Your task to perform on an android device: Add razer kraken to the cart on costco.com, then select checkout. Image 0: 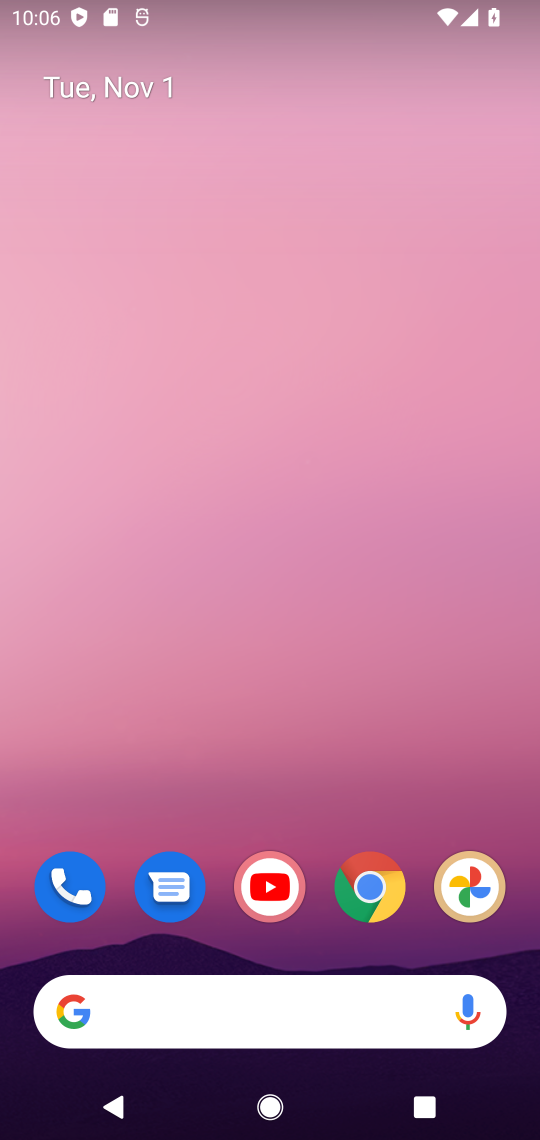
Step 0: click (357, 886)
Your task to perform on an android device: Add razer kraken to the cart on costco.com, then select checkout. Image 1: 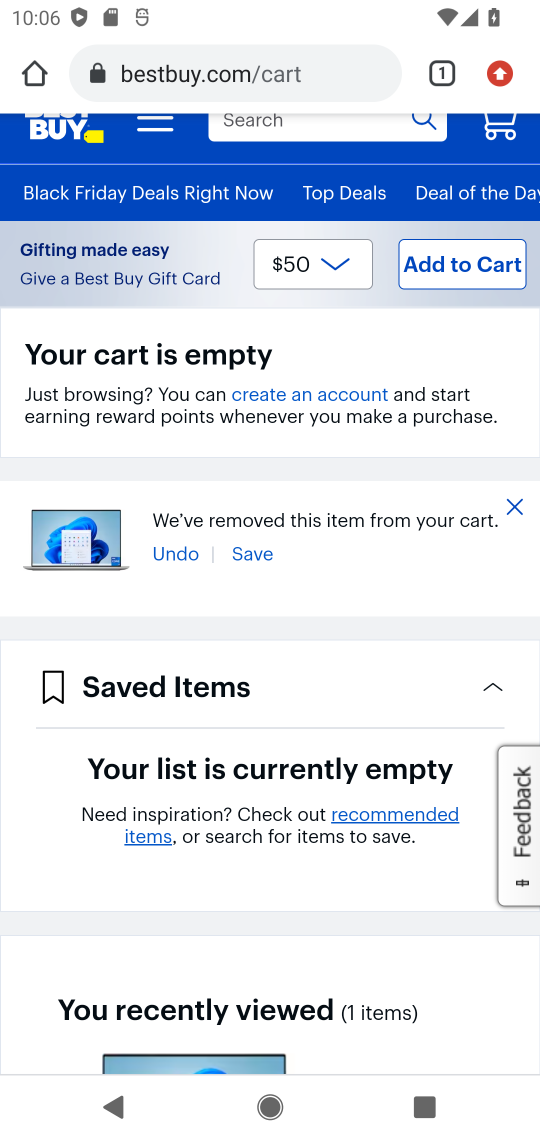
Step 1: click (282, 69)
Your task to perform on an android device: Add razer kraken to the cart on costco.com, then select checkout. Image 2: 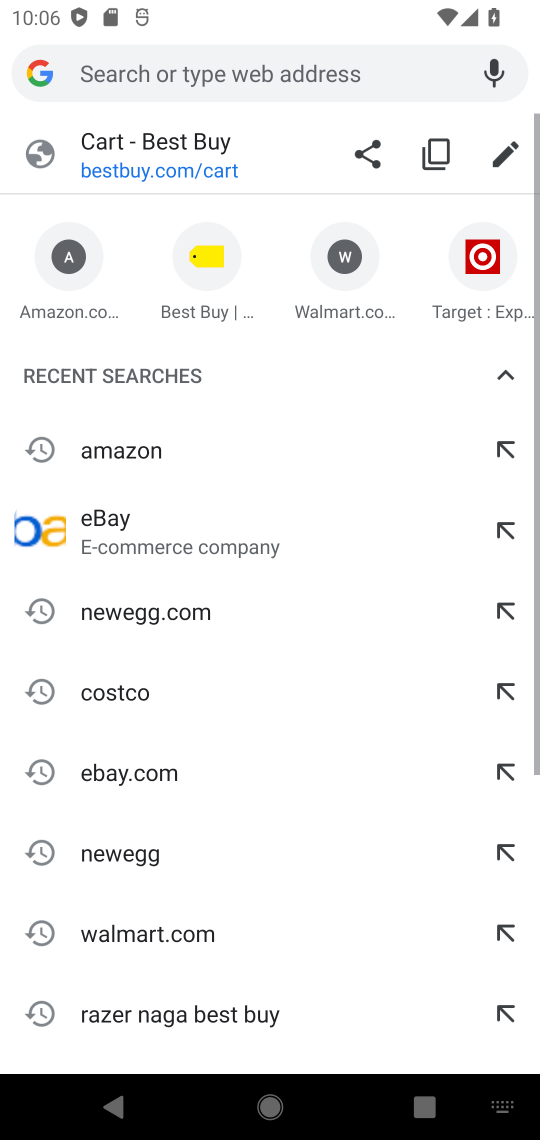
Step 2: type "costco.com"
Your task to perform on an android device: Add razer kraken to the cart on costco.com, then select checkout. Image 3: 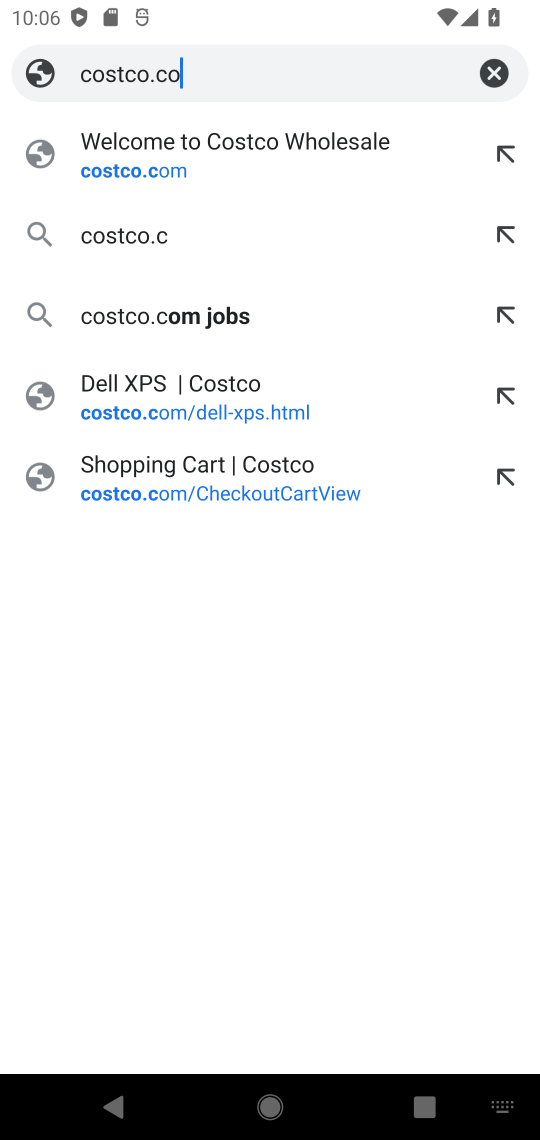
Step 3: press enter
Your task to perform on an android device: Add razer kraken to the cart on costco.com, then select checkout. Image 4: 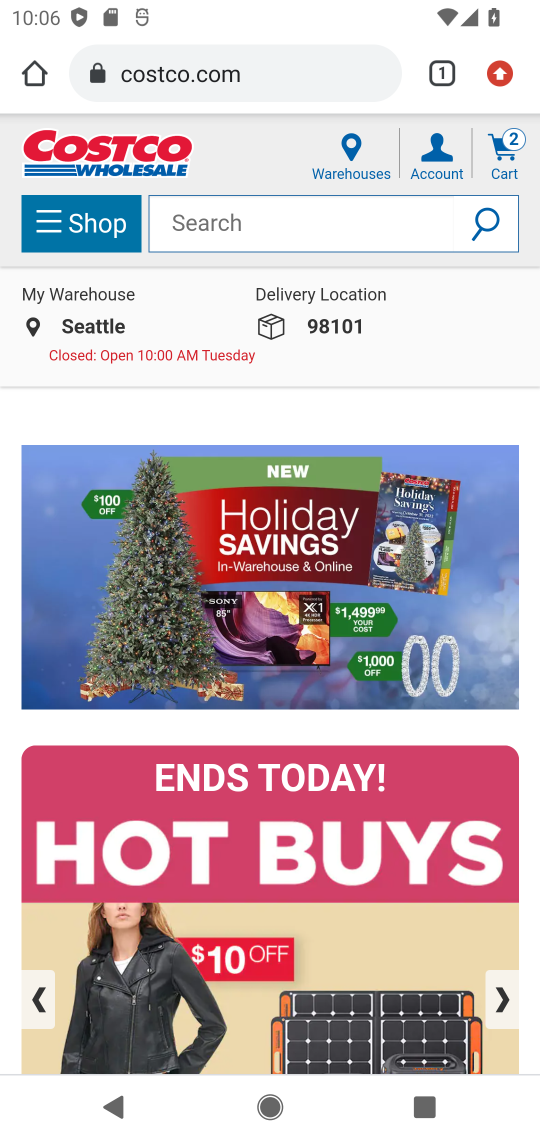
Step 4: click (307, 215)
Your task to perform on an android device: Add razer kraken to the cart on costco.com, then select checkout. Image 5: 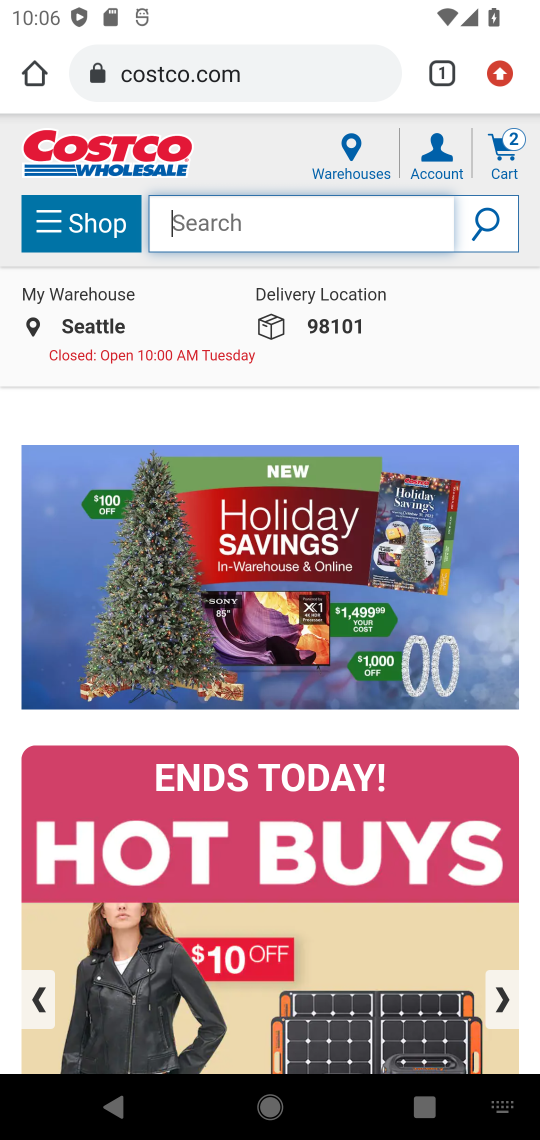
Step 5: press enter
Your task to perform on an android device: Add razer kraken to the cart on costco.com, then select checkout. Image 6: 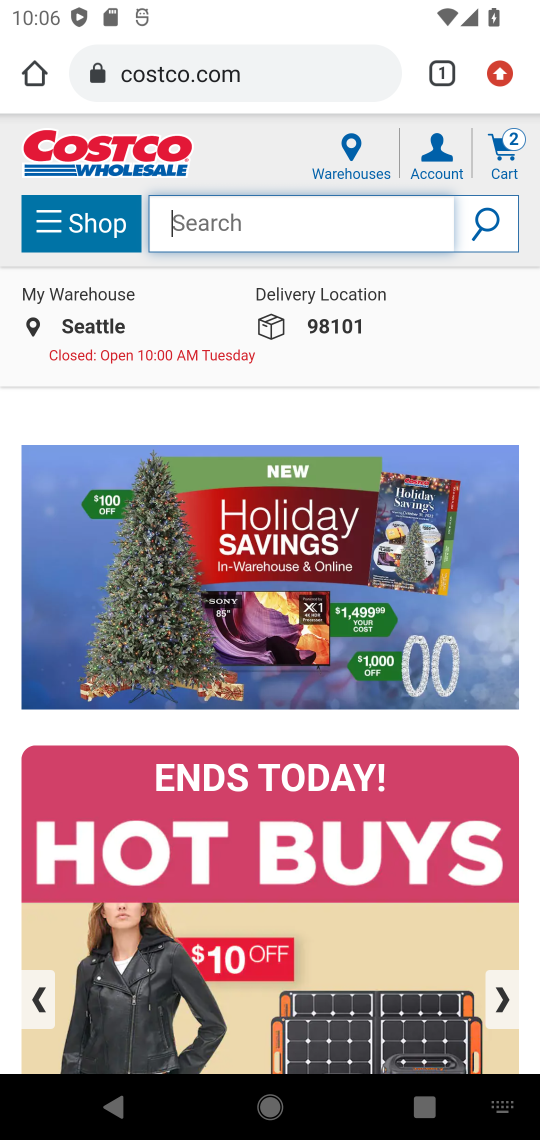
Step 6: type "razer kraken"
Your task to perform on an android device: Add razer kraken to the cart on costco.com, then select checkout. Image 7: 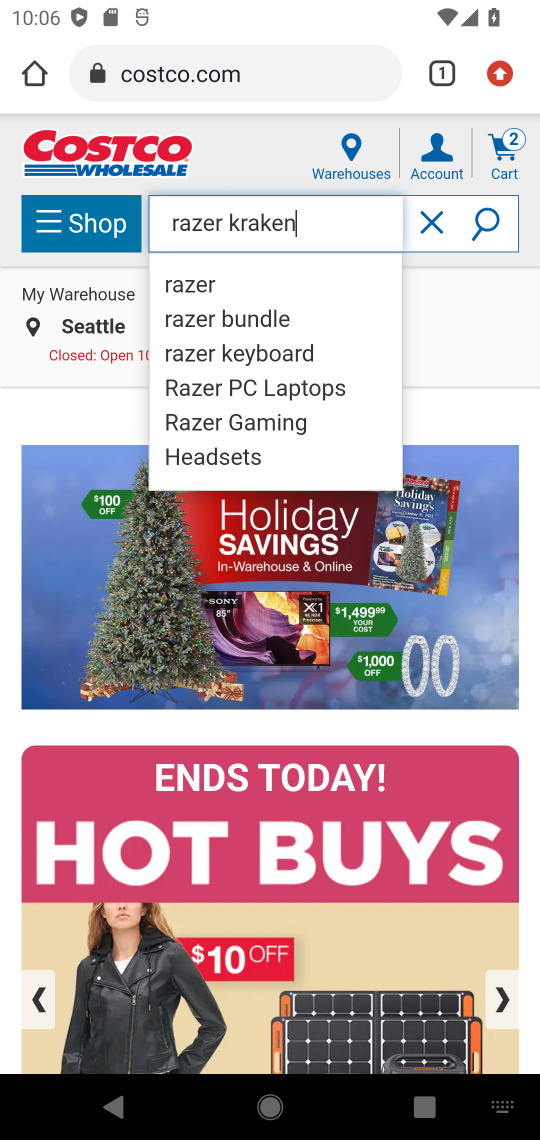
Step 7: click (492, 311)
Your task to perform on an android device: Add razer kraken to the cart on costco.com, then select checkout. Image 8: 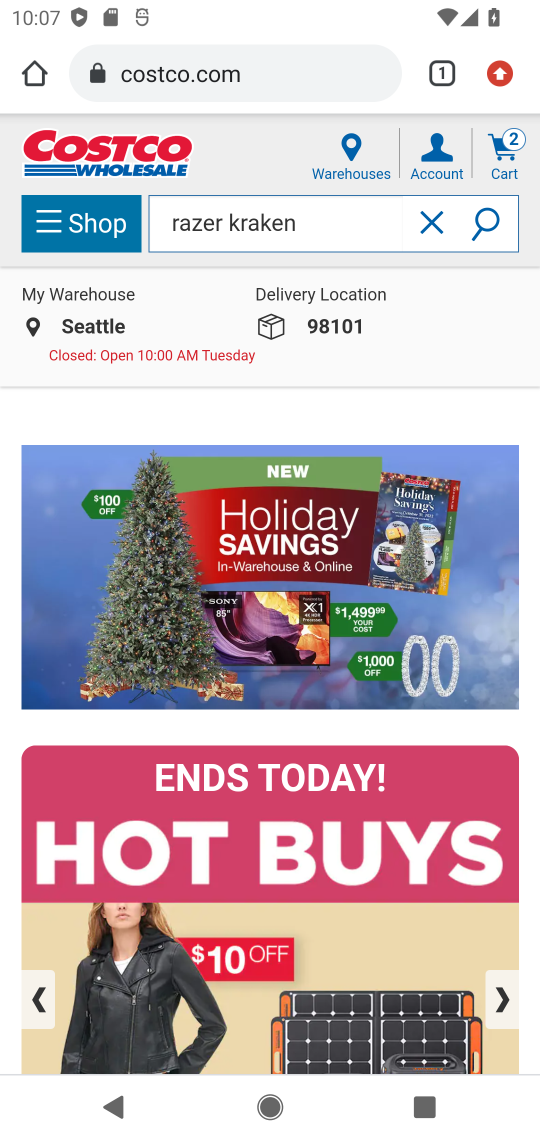
Step 8: click (377, 216)
Your task to perform on an android device: Add razer kraken to the cart on costco.com, then select checkout. Image 9: 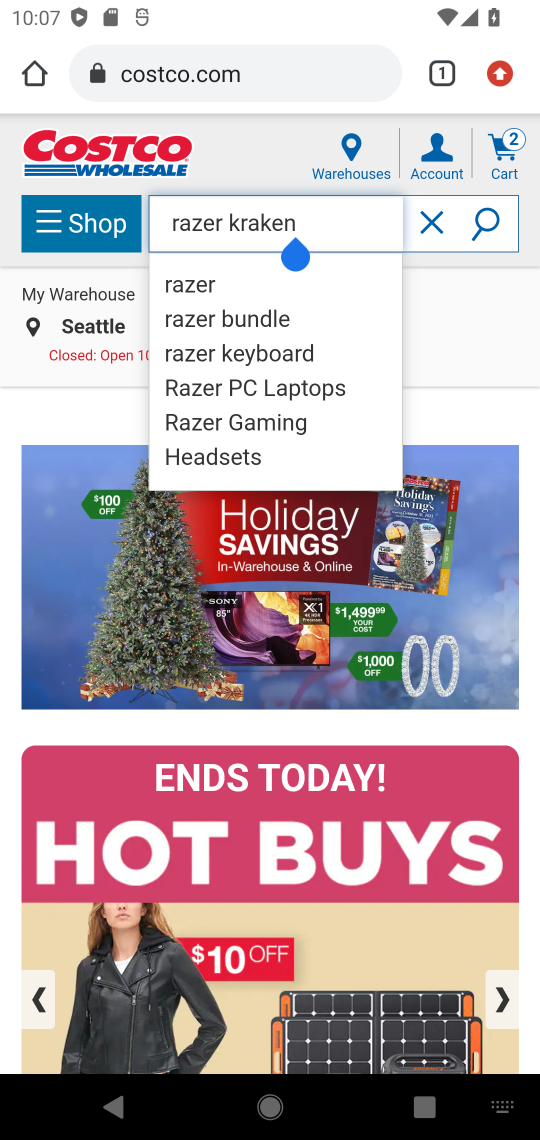
Step 9: click (195, 285)
Your task to perform on an android device: Add razer kraken to the cart on costco.com, then select checkout. Image 10: 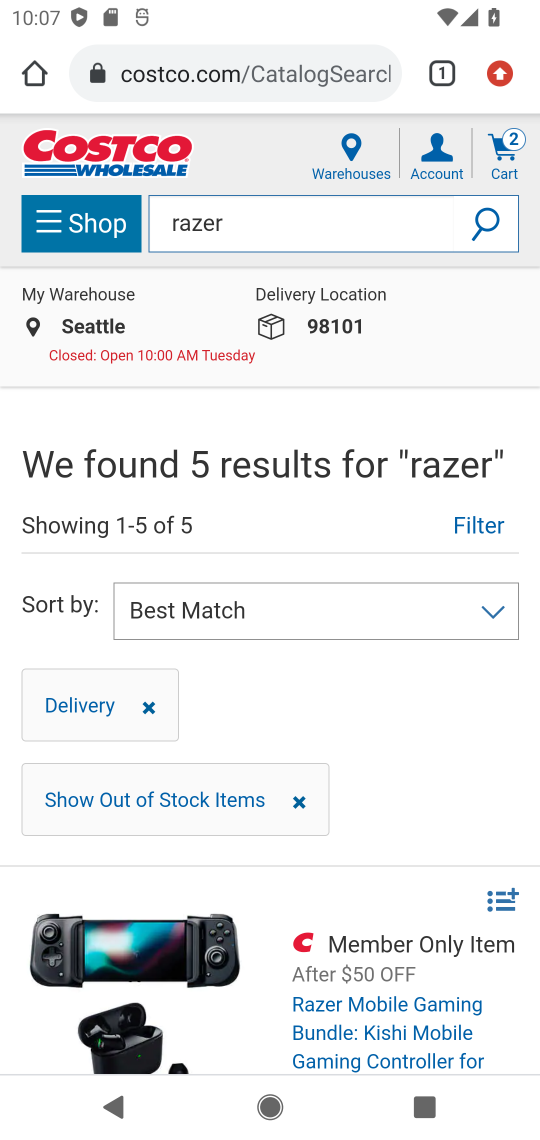
Step 10: drag from (280, 733) to (288, 388)
Your task to perform on an android device: Add razer kraken to the cart on costco.com, then select checkout. Image 11: 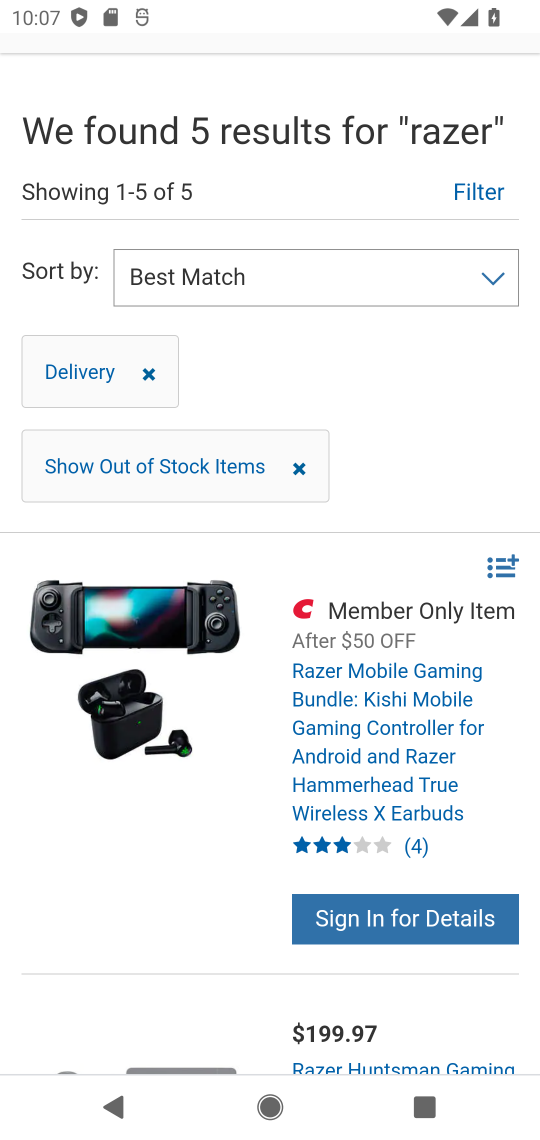
Step 11: drag from (357, 952) to (321, 593)
Your task to perform on an android device: Add razer kraken to the cart on costco.com, then select checkout. Image 12: 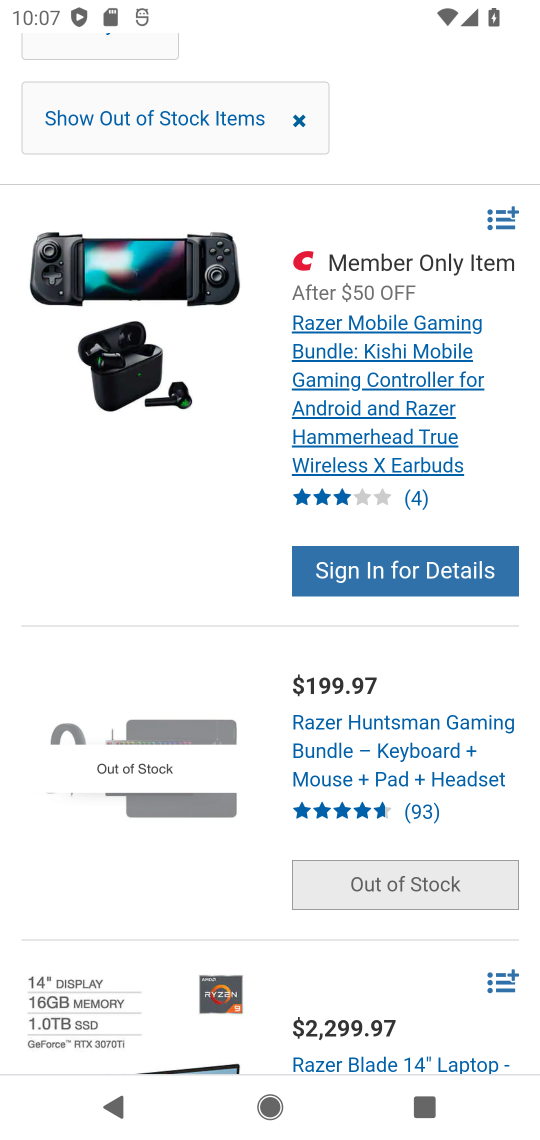
Step 12: drag from (372, 964) to (335, 604)
Your task to perform on an android device: Add razer kraken to the cart on costco.com, then select checkout. Image 13: 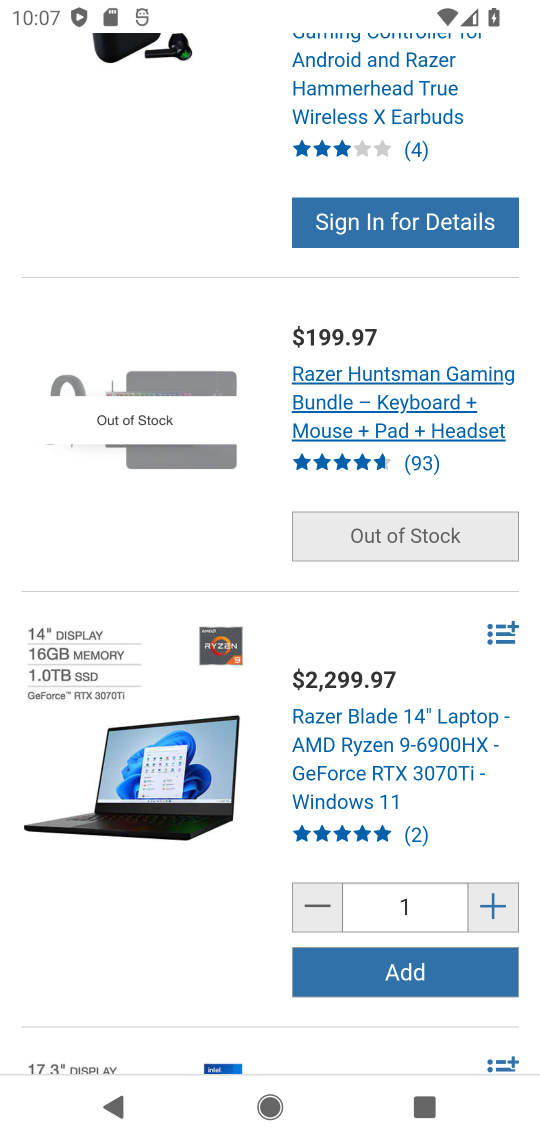
Step 13: drag from (371, 879) to (381, 517)
Your task to perform on an android device: Add razer kraken to the cart on costco.com, then select checkout. Image 14: 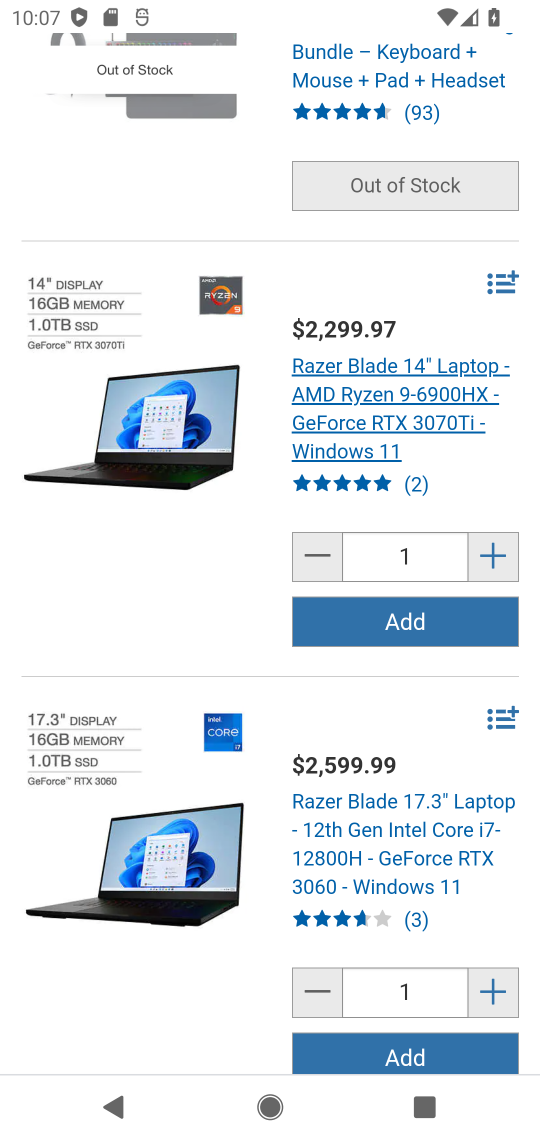
Step 14: drag from (419, 964) to (364, 595)
Your task to perform on an android device: Add razer kraken to the cart on costco.com, then select checkout. Image 15: 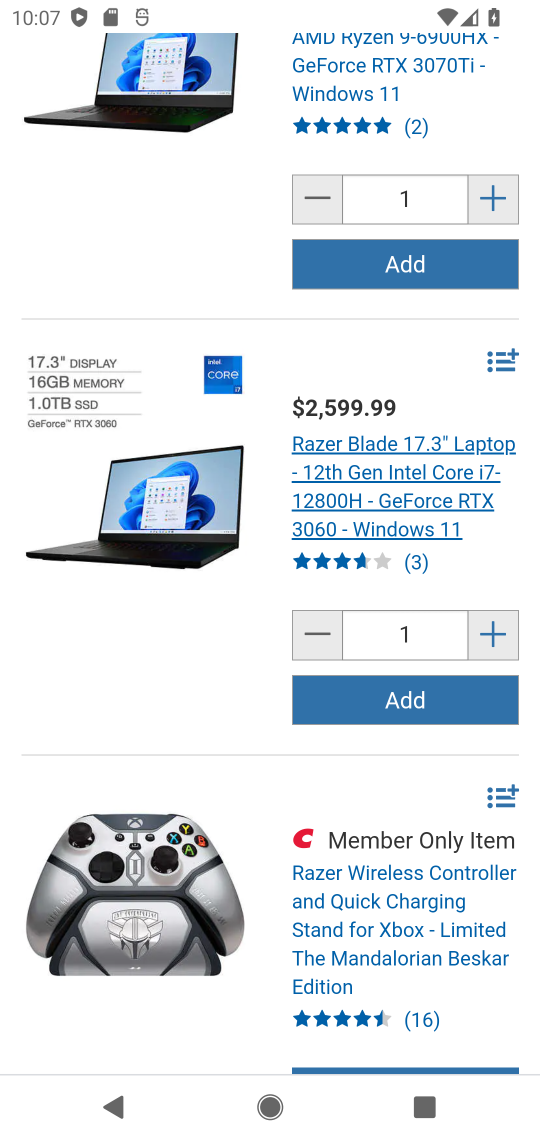
Step 15: press back button
Your task to perform on an android device: Add razer kraken to the cart on costco.com, then select checkout. Image 16: 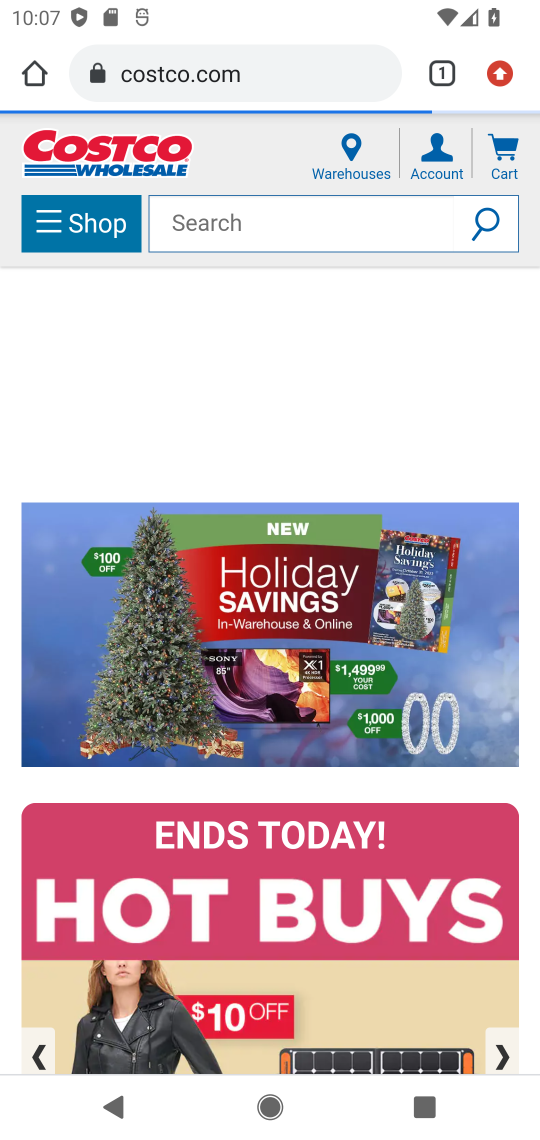
Step 16: click (271, 221)
Your task to perform on an android device: Add razer kraken to the cart on costco.com, then select checkout. Image 17: 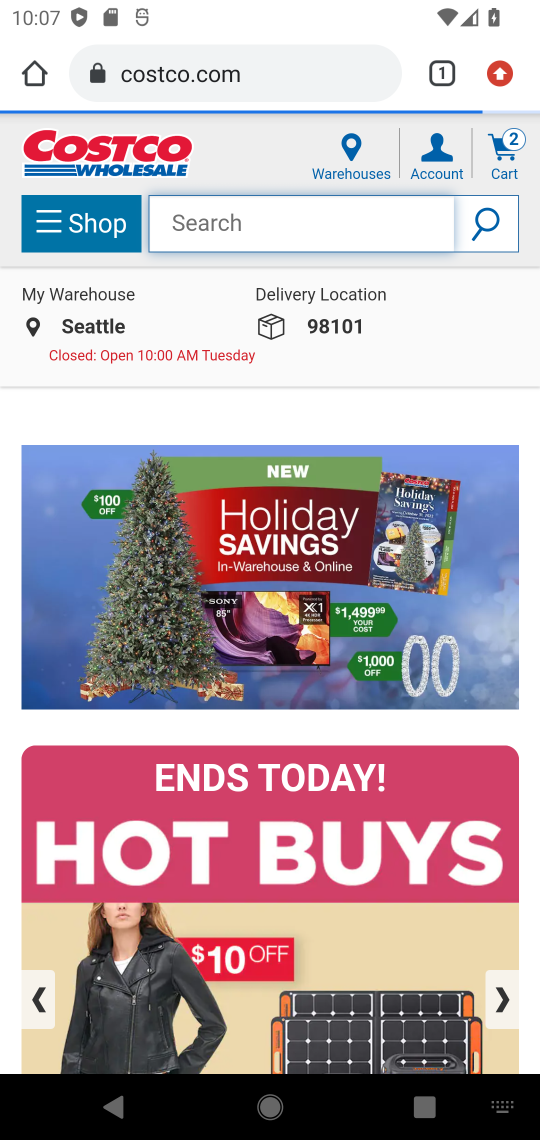
Step 17: type "razer kraken"
Your task to perform on an android device: Add razer kraken to the cart on costco.com, then select checkout. Image 18: 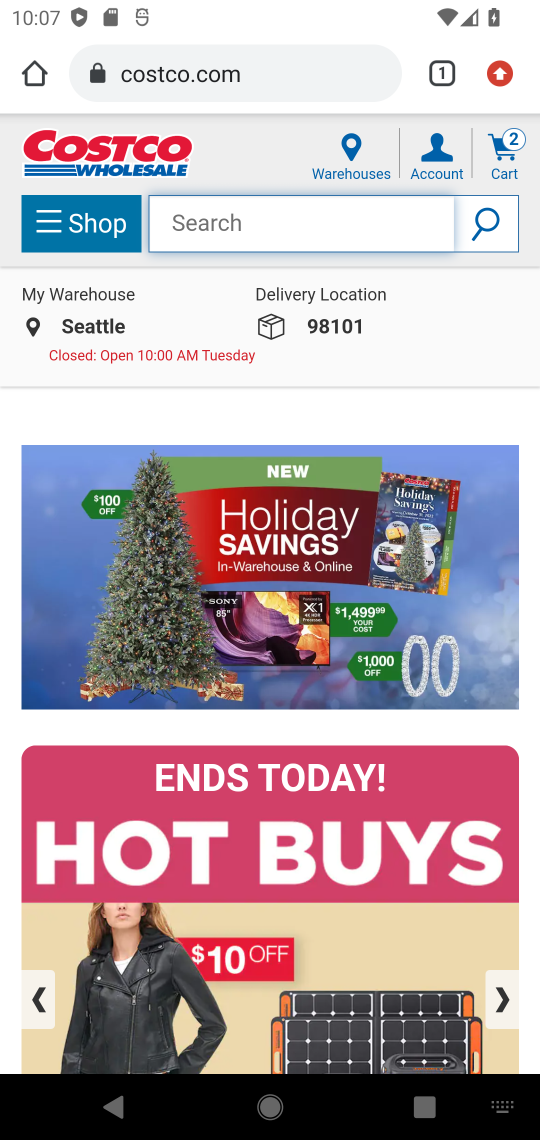
Step 18: press enter
Your task to perform on an android device: Add razer kraken to the cart on costco.com, then select checkout. Image 19: 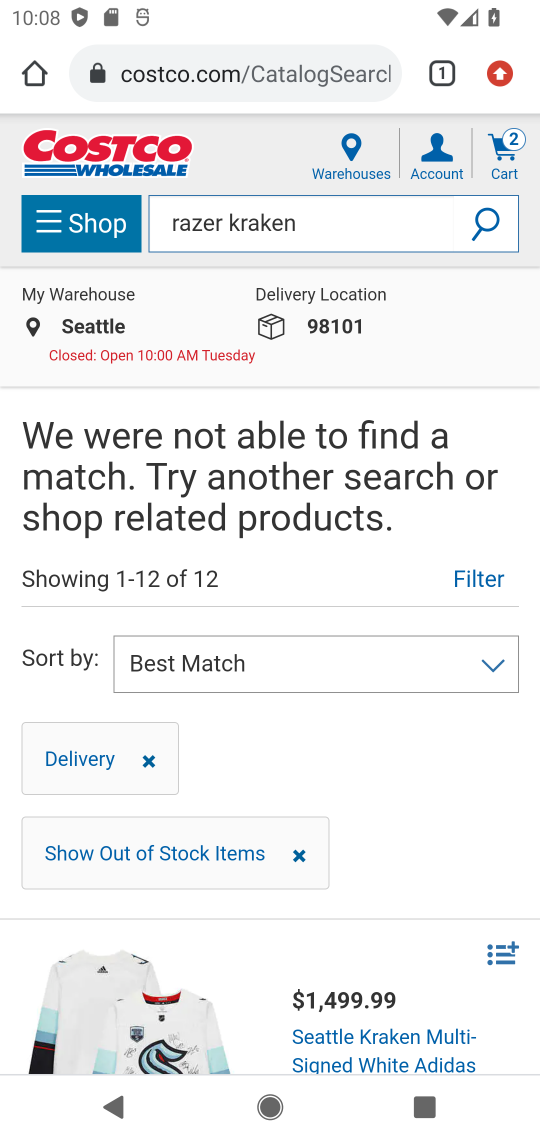
Step 19: task complete